Your task to perform on an android device: Open the Play Movies app and select the watchlist tab. Image 0: 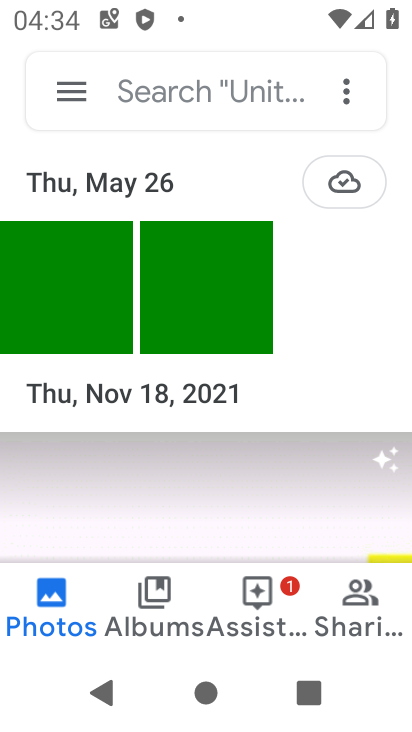
Step 0: press home button
Your task to perform on an android device: Open the Play Movies app and select the watchlist tab. Image 1: 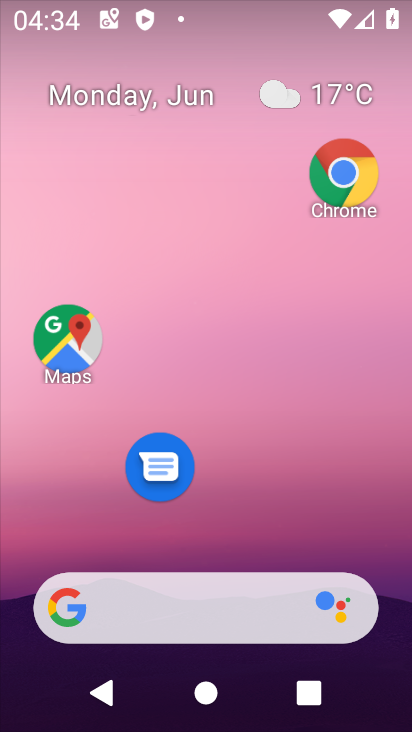
Step 1: drag from (263, 479) to (323, 4)
Your task to perform on an android device: Open the Play Movies app and select the watchlist tab. Image 2: 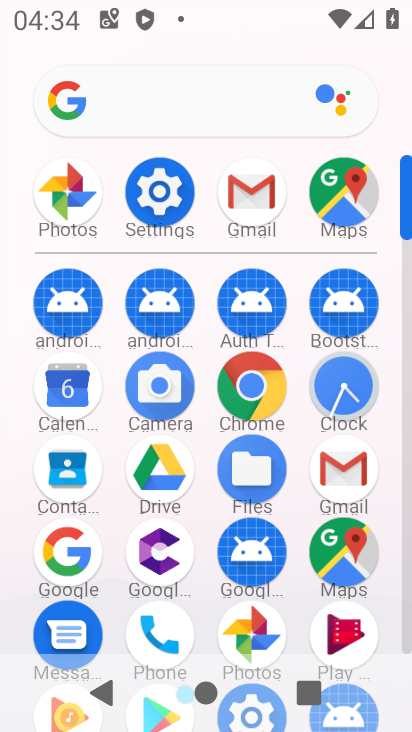
Step 2: drag from (190, 604) to (237, 277)
Your task to perform on an android device: Open the Play Movies app and select the watchlist tab. Image 3: 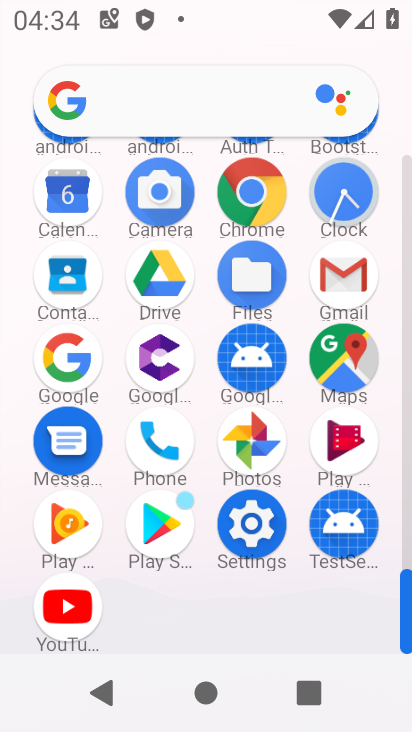
Step 3: click (339, 446)
Your task to perform on an android device: Open the Play Movies app and select the watchlist tab. Image 4: 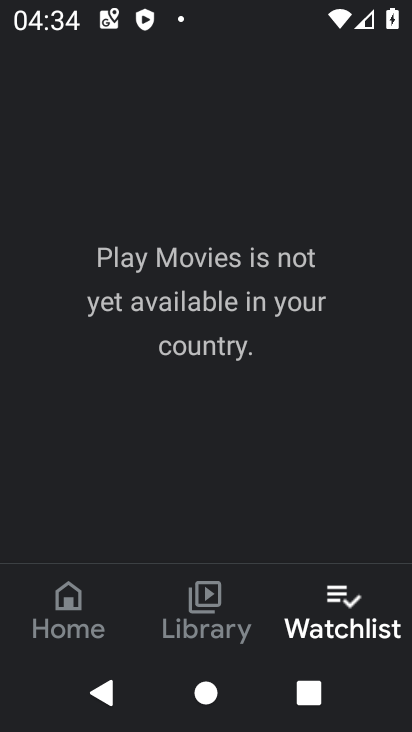
Step 4: task complete